Your task to perform on an android device: create a new album in the google photos Image 0: 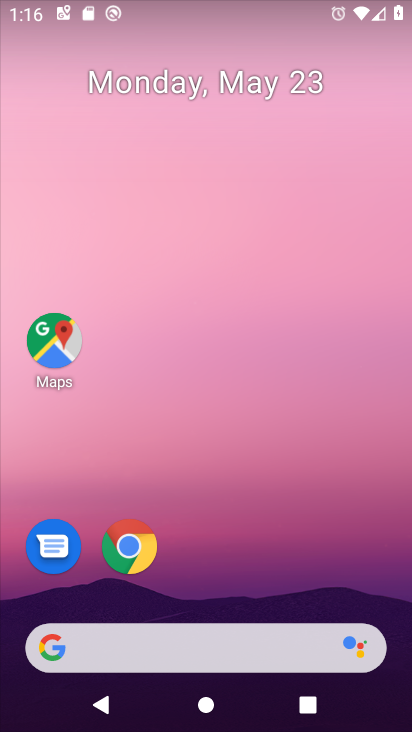
Step 0: drag from (286, 569) to (261, 176)
Your task to perform on an android device: create a new album in the google photos Image 1: 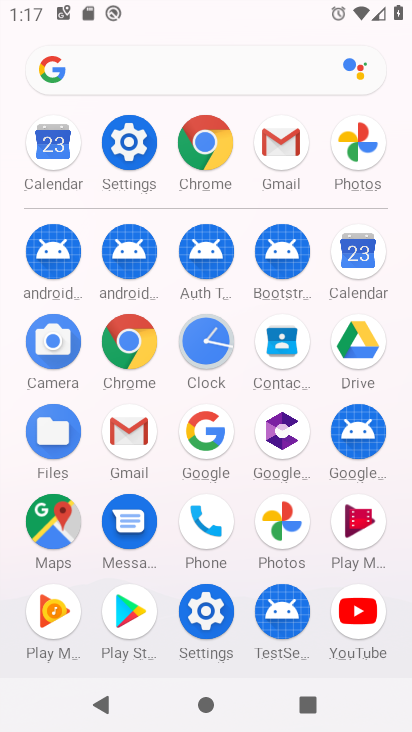
Step 1: click (282, 525)
Your task to perform on an android device: create a new album in the google photos Image 2: 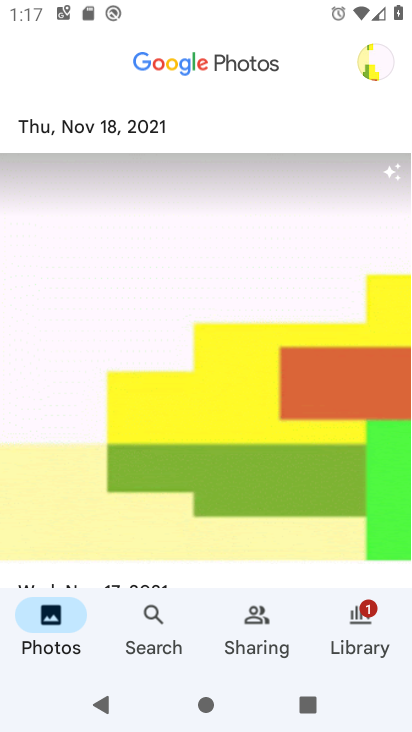
Step 2: click (157, 641)
Your task to perform on an android device: create a new album in the google photos Image 3: 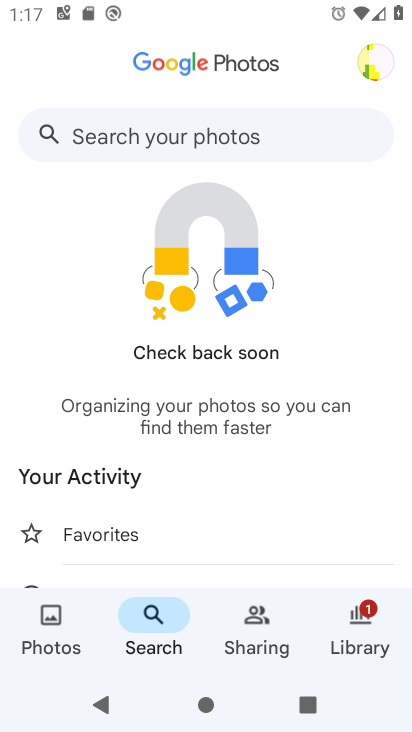
Step 3: click (350, 631)
Your task to perform on an android device: create a new album in the google photos Image 4: 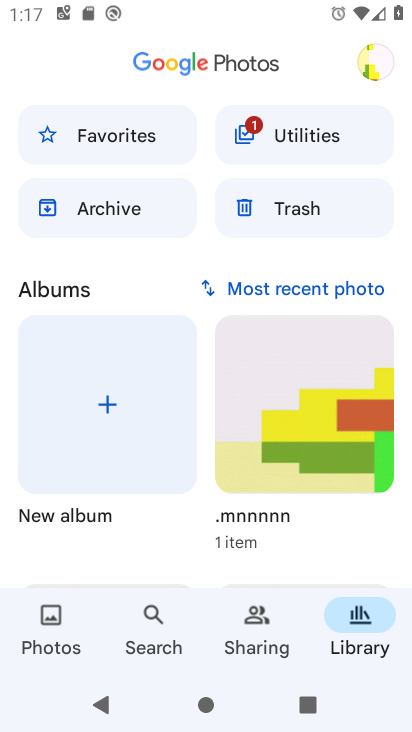
Step 4: click (131, 413)
Your task to perform on an android device: create a new album in the google photos Image 5: 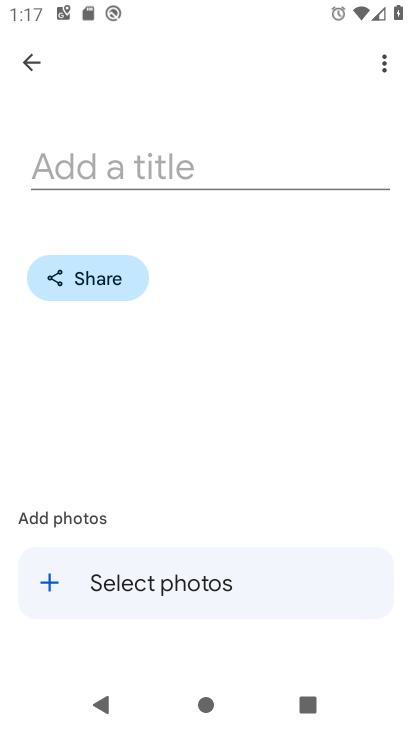
Step 5: click (216, 174)
Your task to perform on an android device: create a new album in the google photos Image 6: 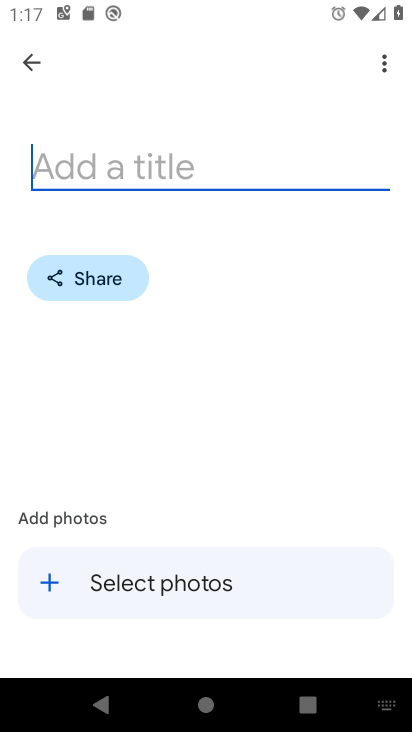
Step 6: type "ddssw"
Your task to perform on an android device: create a new album in the google photos Image 7: 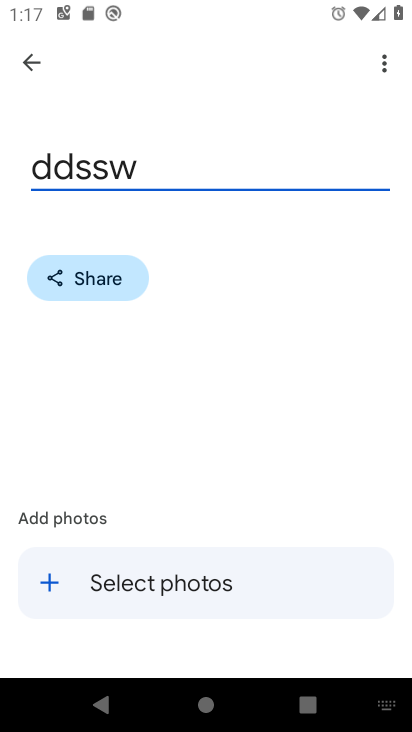
Step 7: click (47, 586)
Your task to perform on an android device: create a new album in the google photos Image 8: 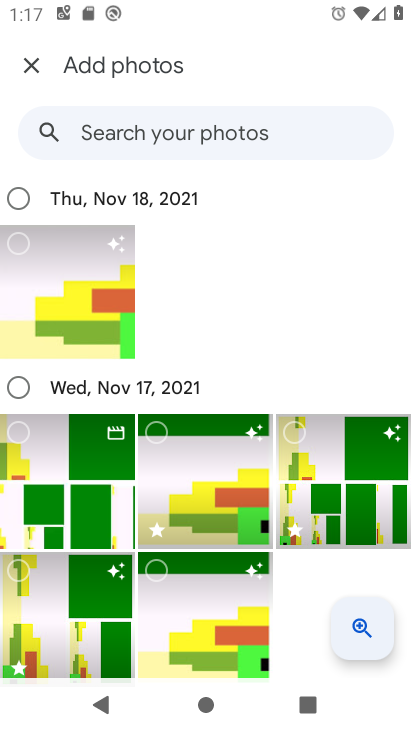
Step 8: click (48, 434)
Your task to perform on an android device: create a new album in the google photos Image 9: 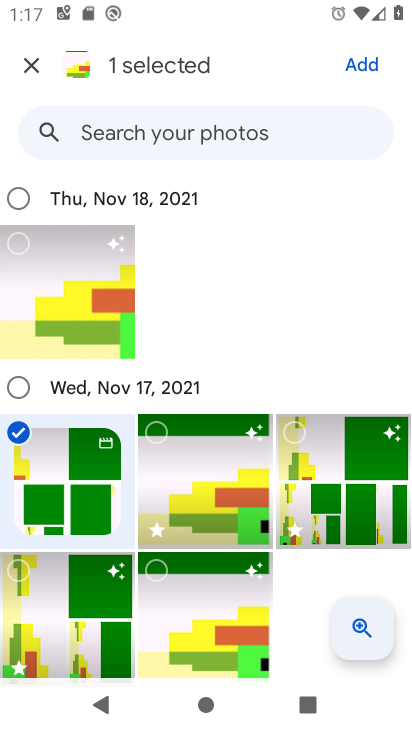
Step 9: click (200, 454)
Your task to perform on an android device: create a new album in the google photos Image 10: 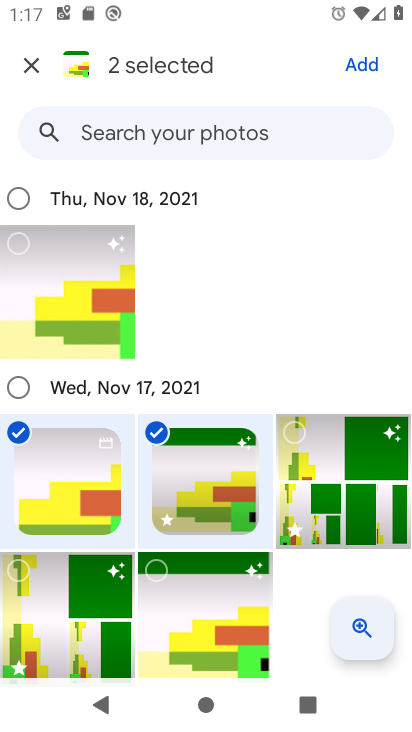
Step 10: click (368, 448)
Your task to perform on an android device: create a new album in the google photos Image 11: 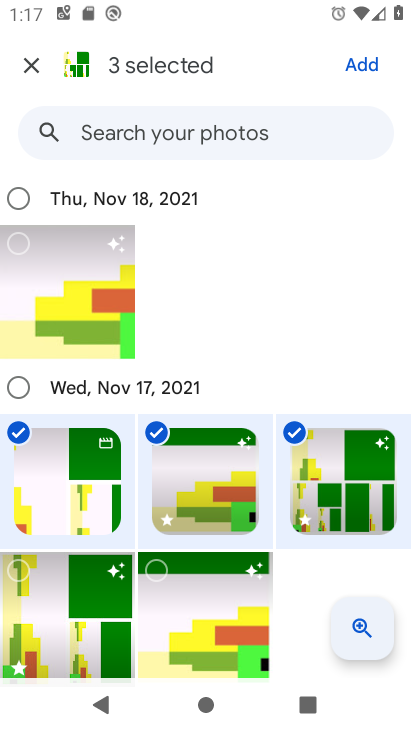
Step 11: click (366, 63)
Your task to perform on an android device: create a new album in the google photos Image 12: 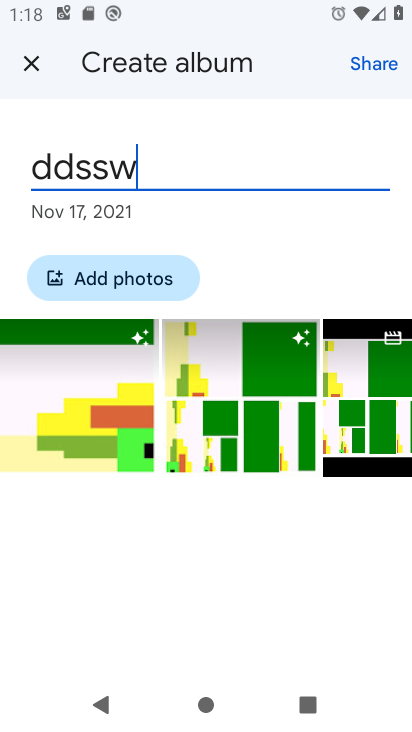
Step 12: task complete